Your task to perform on an android device: show emergency info Image 0: 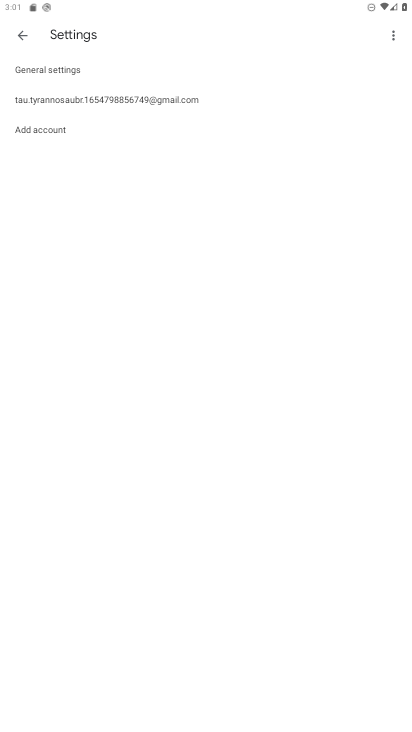
Step 0: press home button
Your task to perform on an android device: show emergency info Image 1: 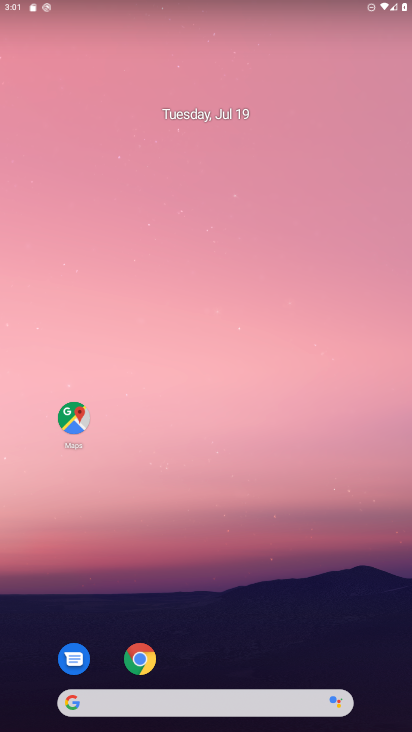
Step 1: drag from (263, 620) to (270, 116)
Your task to perform on an android device: show emergency info Image 2: 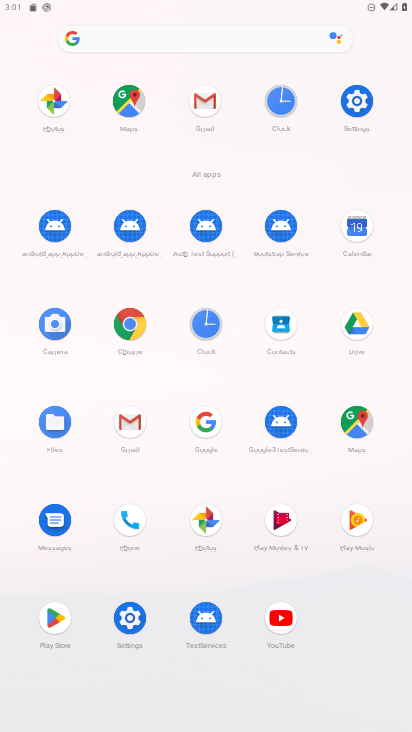
Step 2: click (358, 93)
Your task to perform on an android device: show emergency info Image 3: 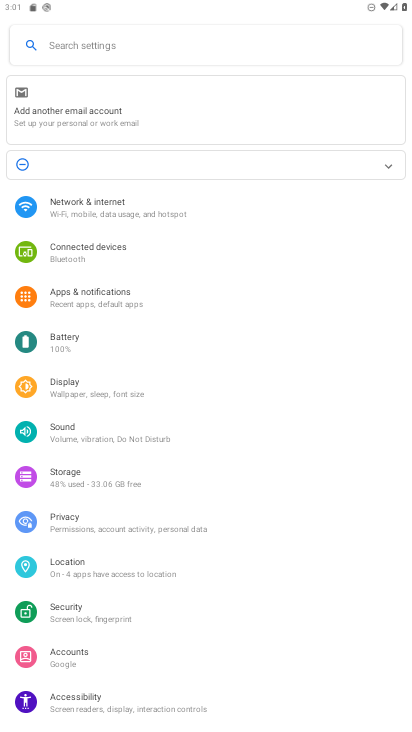
Step 3: drag from (85, 617) to (38, 211)
Your task to perform on an android device: show emergency info Image 4: 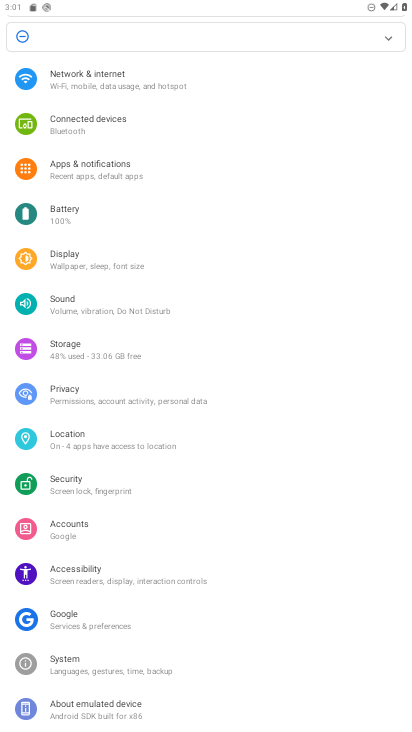
Step 4: click (101, 703)
Your task to perform on an android device: show emergency info Image 5: 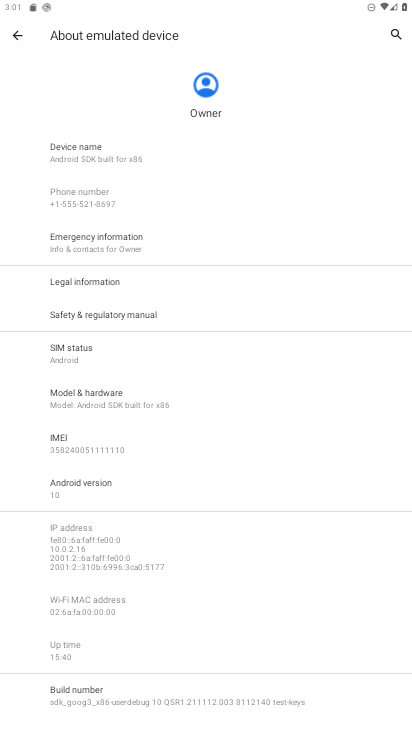
Step 5: click (142, 235)
Your task to perform on an android device: show emergency info Image 6: 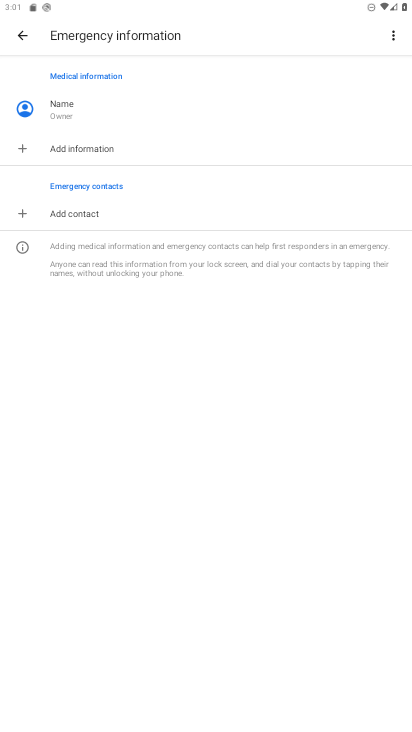
Step 6: task complete